Your task to perform on an android device: open the mobile data screen to see how much data has been used Image 0: 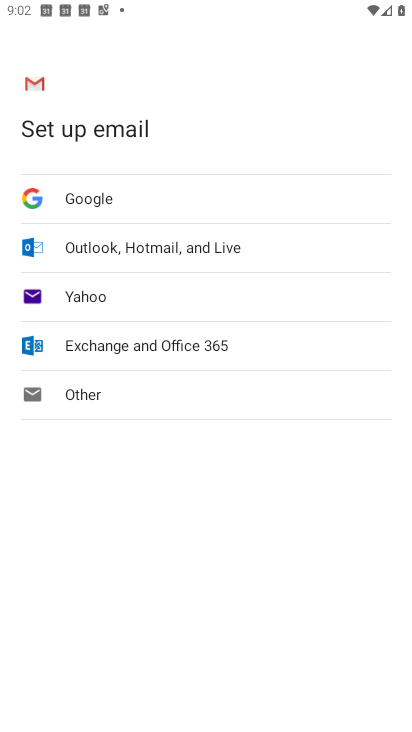
Step 0: press home button
Your task to perform on an android device: open the mobile data screen to see how much data has been used Image 1: 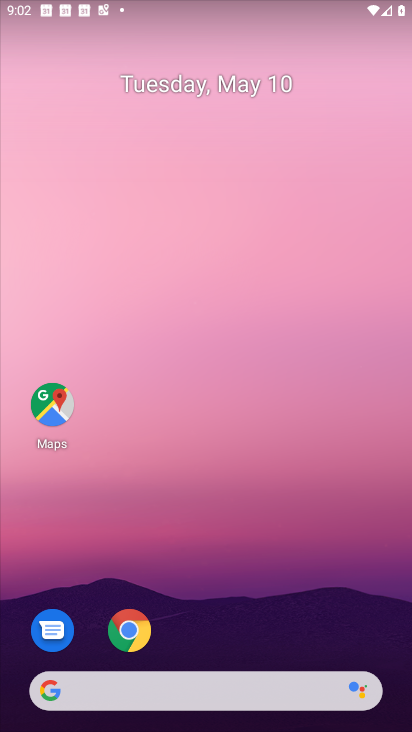
Step 1: drag from (176, 722) to (214, 1)
Your task to perform on an android device: open the mobile data screen to see how much data has been used Image 2: 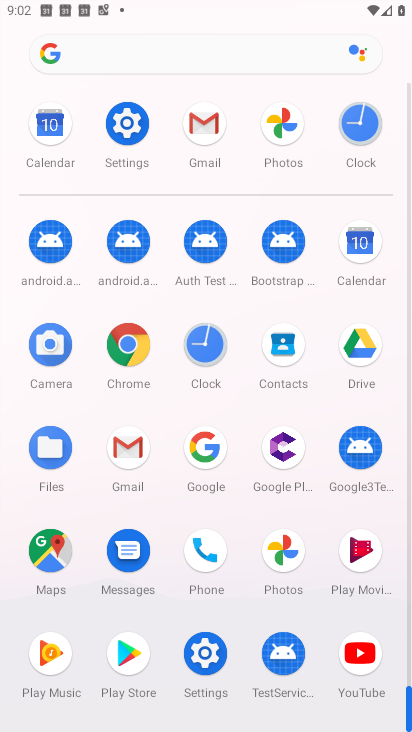
Step 2: click (136, 121)
Your task to perform on an android device: open the mobile data screen to see how much data has been used Image 3: 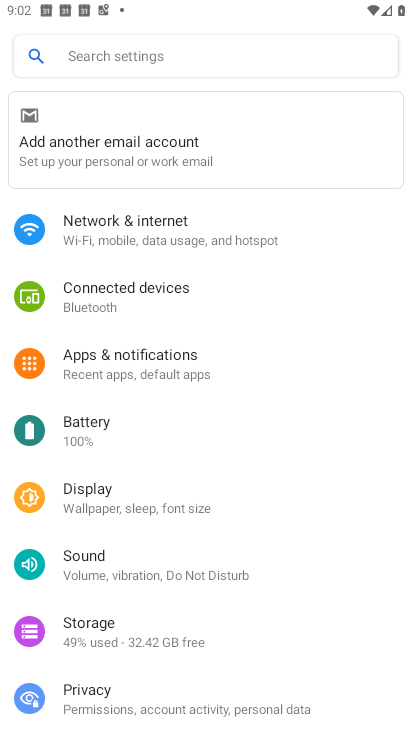
Step 3: click (164, 230)
Your task to perform on an android device: open the mobile data screen to see how much data has been used Image 4: 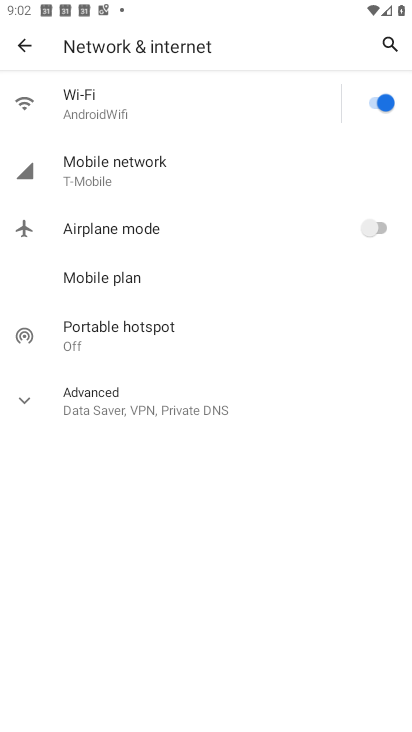
Step 4: click (164, 170)
Your task to perform on an android device: open the mobile data screen to see how much data has been used Image 5: 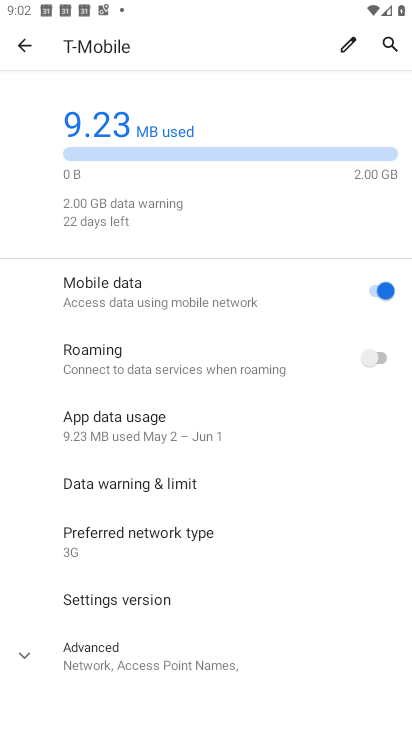
Step 5: task complete